Your task to perform on an android device: move a message to another label in the gmail app Image 0: 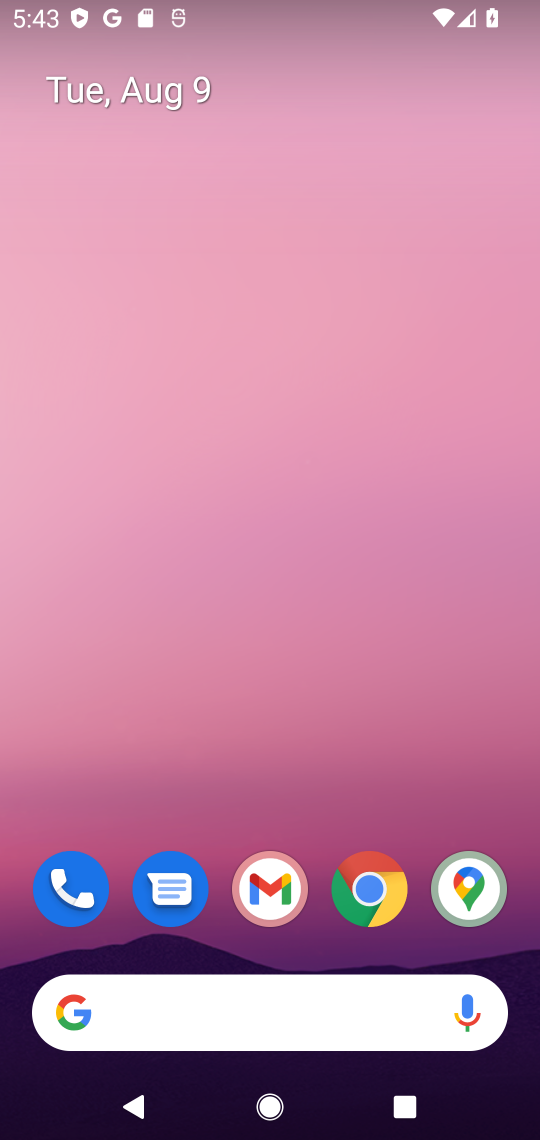
Step 0: click (270, 925)
Your task to perform on an android device: move a message to another label in the gmail app Image 1: 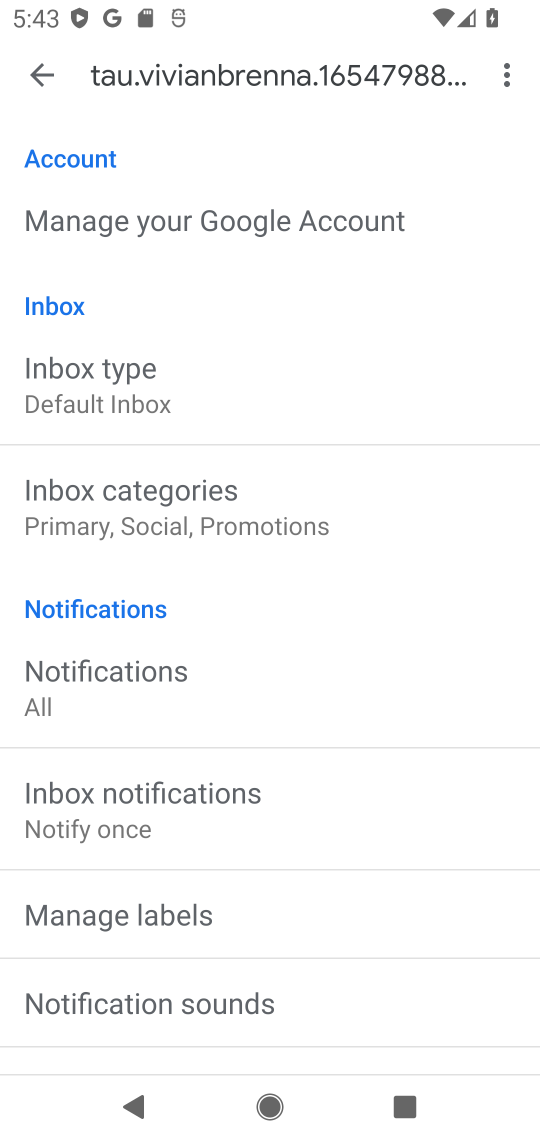
Step 1: click (40, 74)
Your task to perform on an android device: move a message to another label in the gmail app Image 2: 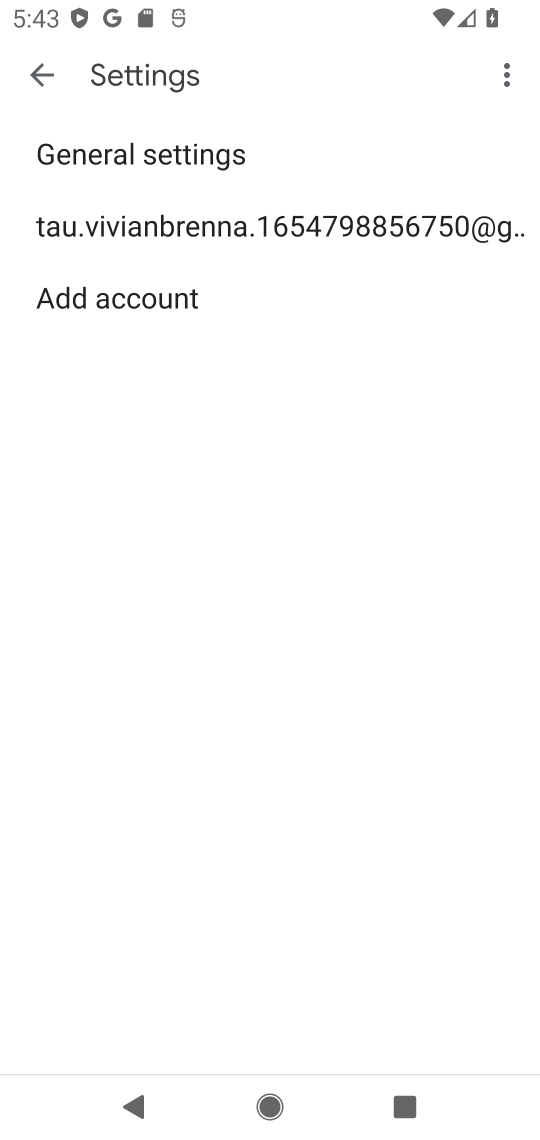
Step 2: click (46, 79)
Your task to perform on an android device: move a message to another label in the gmail app Image 3: 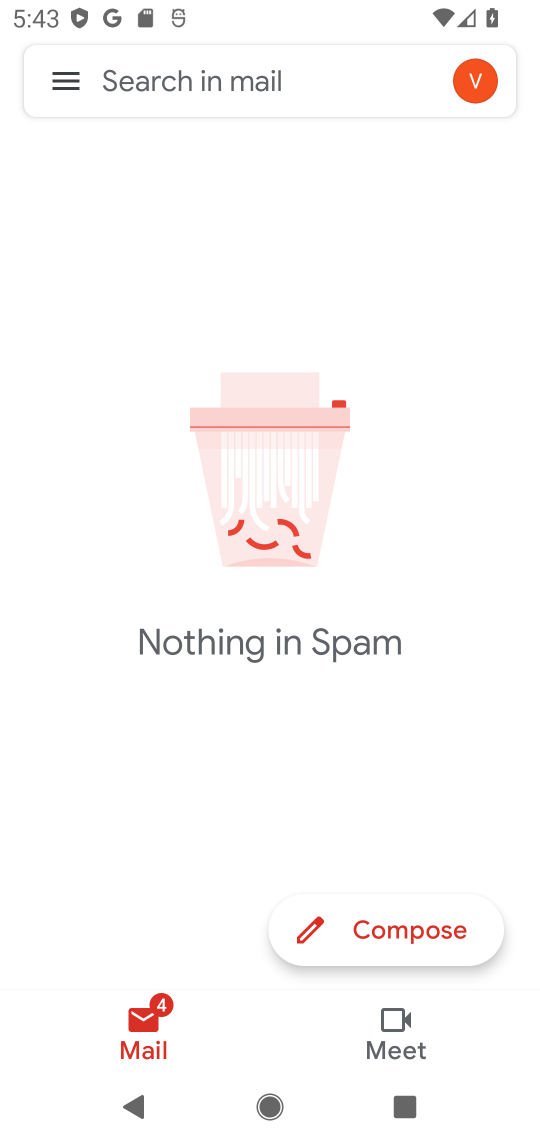
Step 3: click (76, 77)
Your task to perform on an android device: move a message to another label in the gmail app Image 4: 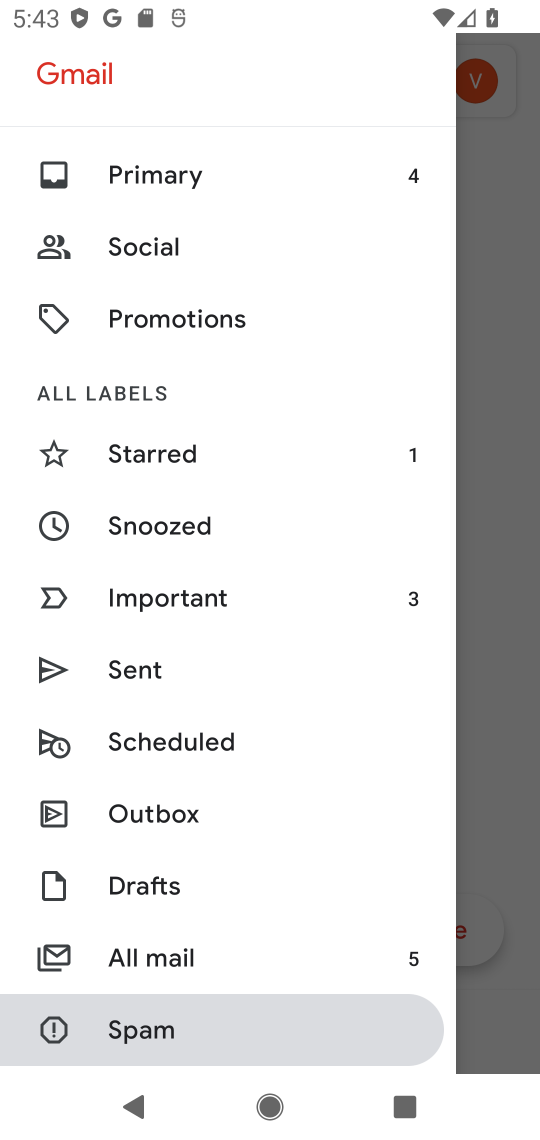
Step 4: click (160, 970)
Your task to perform on an android device: move a message to another label in the gmail app Image 5: 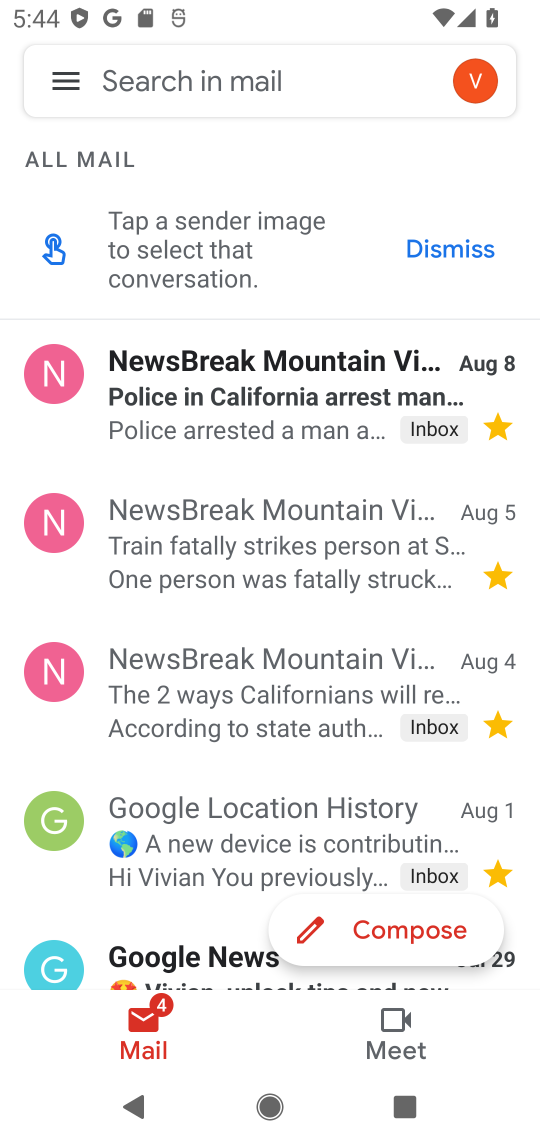
Step 5: click (57, 383)
Your task to perform on an android device: move a message to another label in the gmail app Image 6: 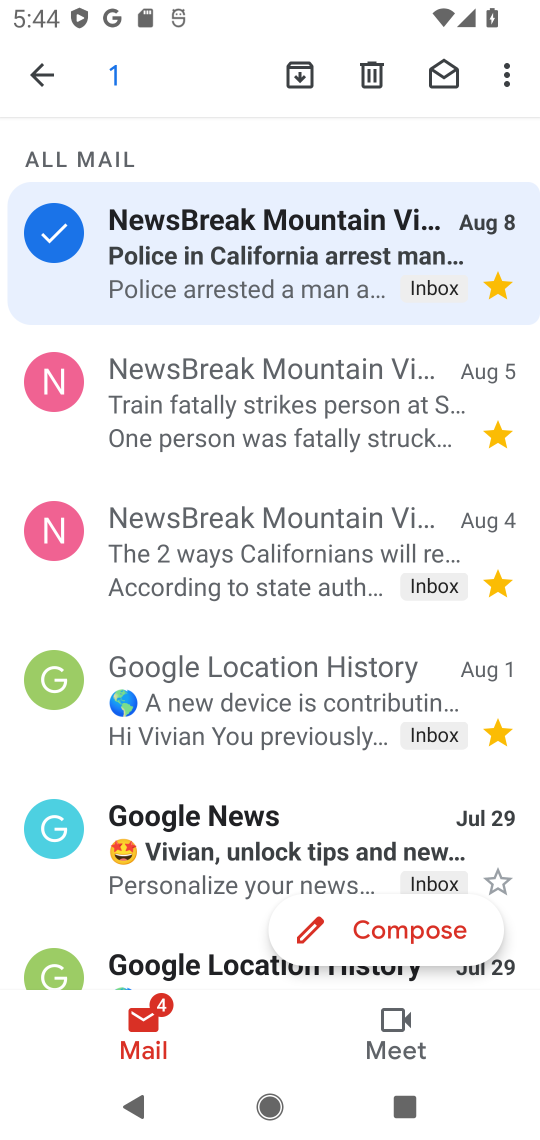
Step 6: click (498, 90)
Your task to perform on an android device: move a message to another label in the gmail app Image 7: 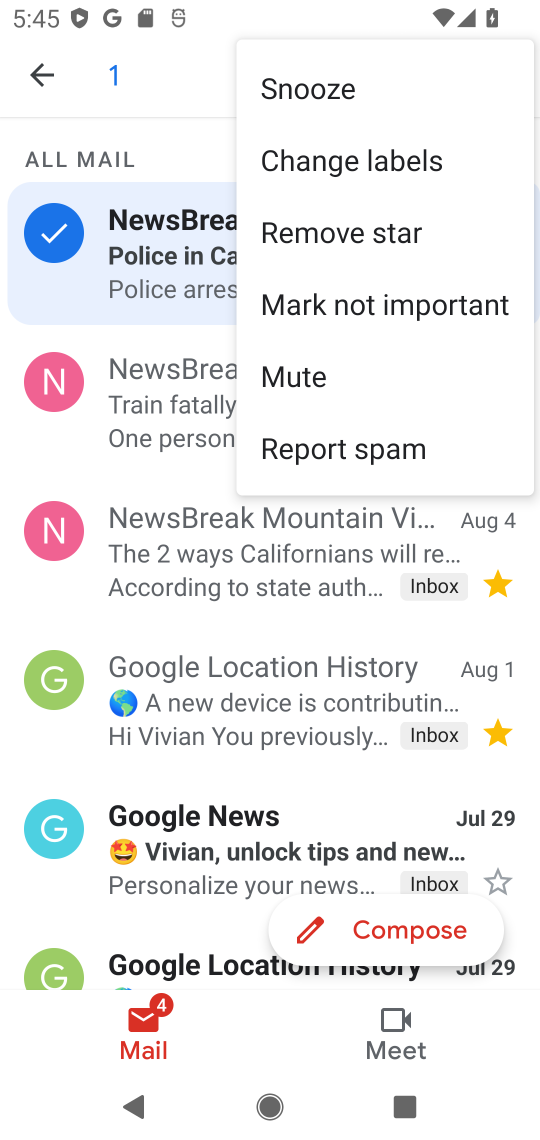
Step 7: click (364, 169)
Your task to perform on an android device: move a message to another label in the gmail app Image 8: 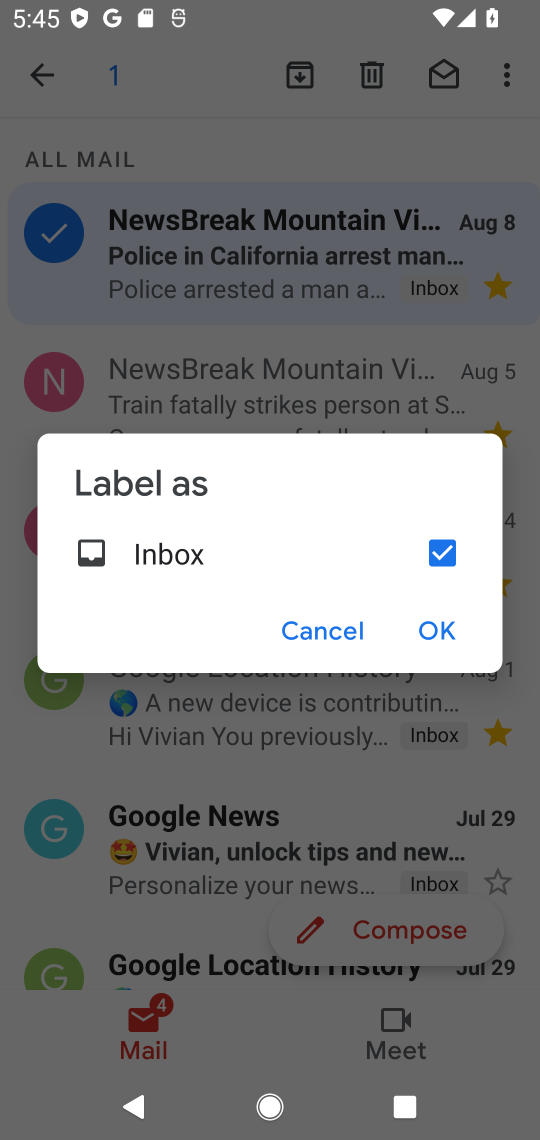
Step 8: click (440, 548)
Your task to perform on an android device: move a message to another label in the gmail app Image 9: 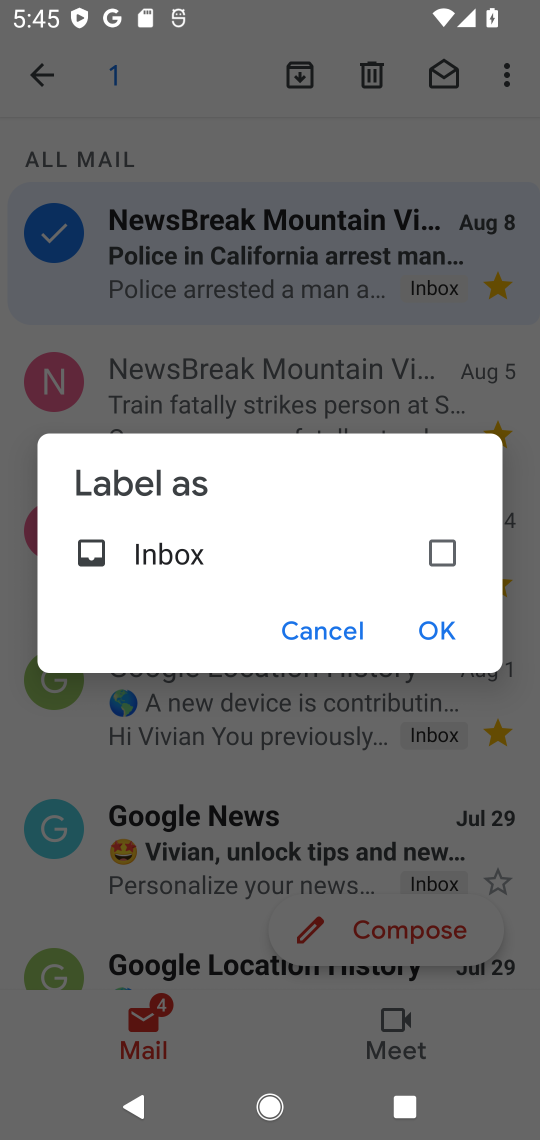
Step 9: click (438, 645)
Your task to perform on an android device: move a message to another label in the gmail app Image 10: 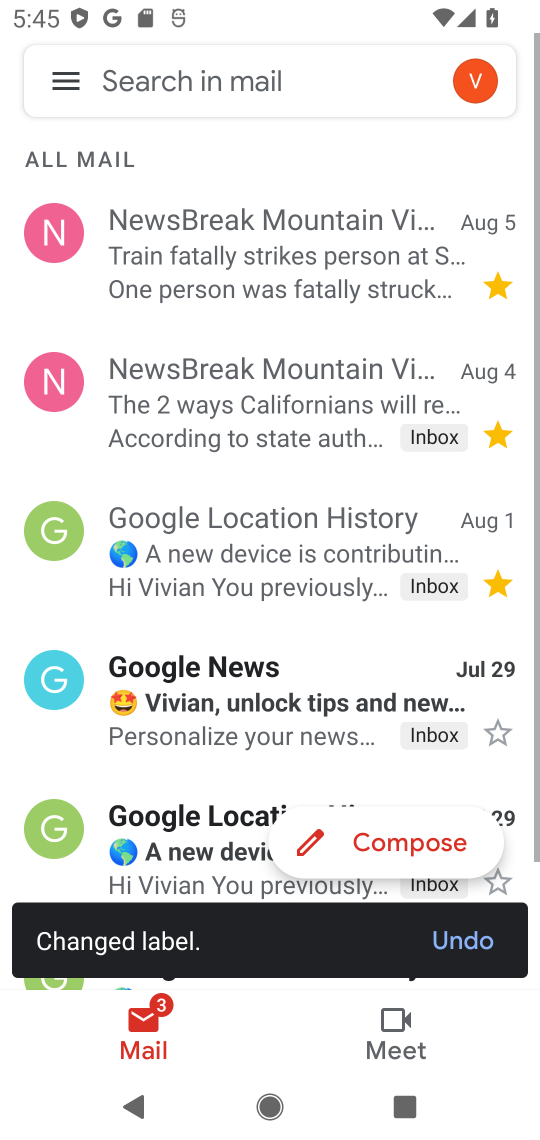
Step 10: task complete